Your task to perform on an android device: Search for seafood restaurants on Google Maps Image 0: 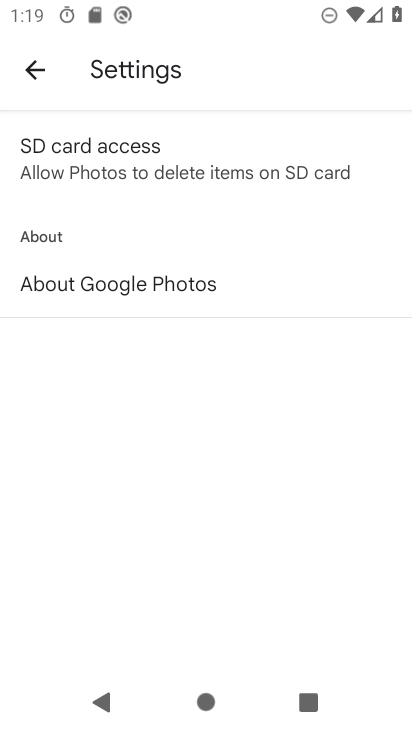
Step 0: press home button
Your task to perform on an android device: Search for seafood restaurants on Google Maps Image 1: 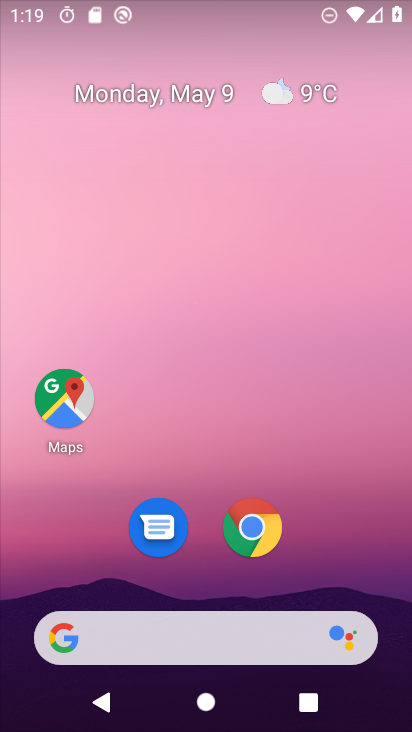
Step 1: click (57, 372)
Your task to perform on an android device: Search for seafood restaurants on Google Maps Image 2: 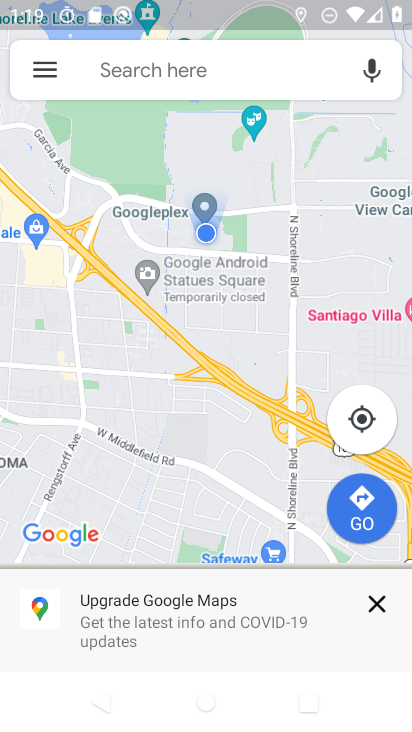
Step 2: click (211, 74)
Your task to perform on an android device: Search for seafood restaurants on Google Maps Image 3: 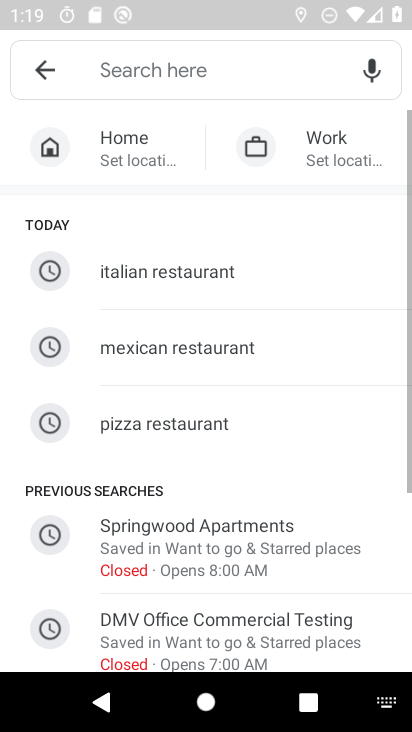
Step 3: drag from (232, 470) to (295, 10)
Your task to perform on an android device: Search for seafood restaurants on Google Maps Image 4: 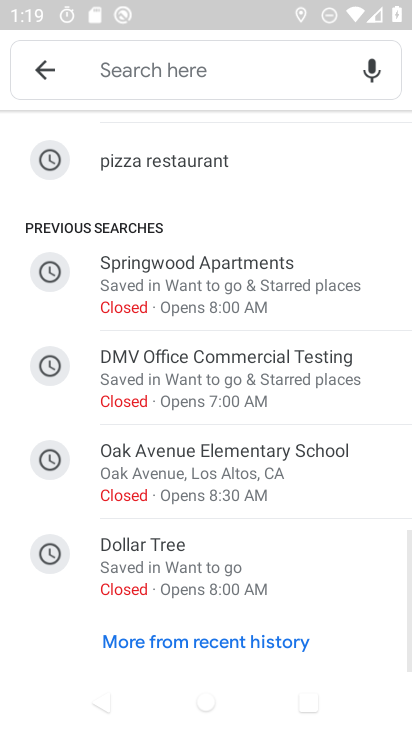
Step 4: click (176, 67)
Your task to perform on an android device: Search for seafood restaurants on Google Maps Image 5: 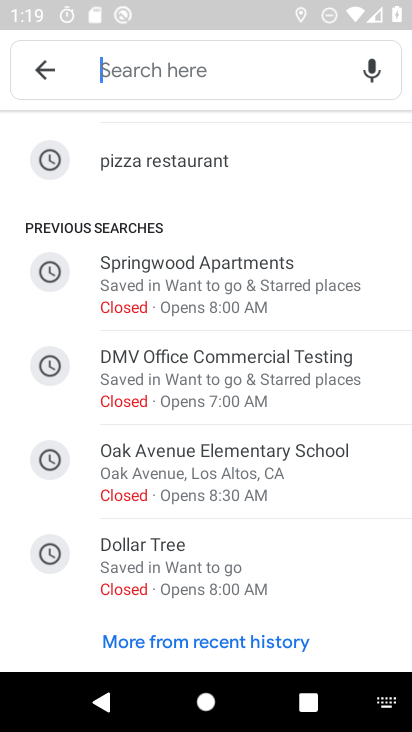
Step 5: type "seafood restaurants"
Your task to perform on an android device: Search for seafood restaurants on Google Maps Image 6: 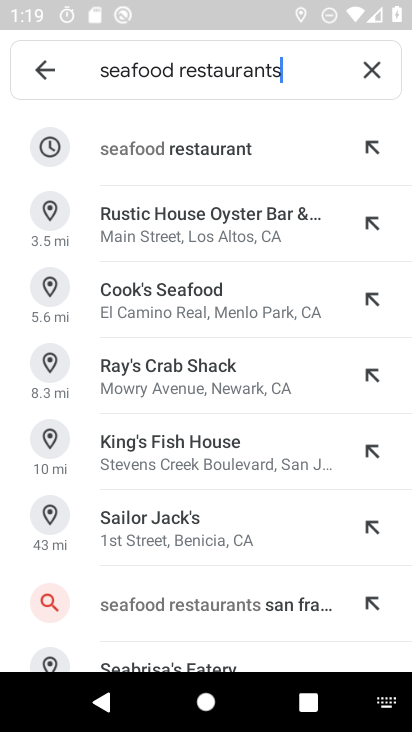
Step 6: click (264, 147)
Your task to perform on an android device: Search for seafood restaurants on Google Maps Image 7: 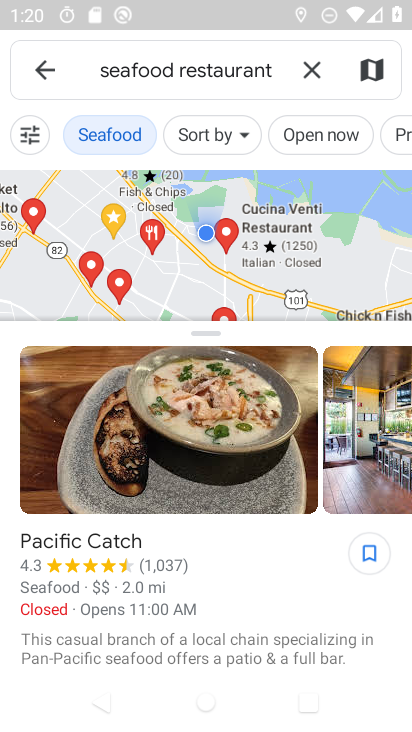
Step 7: task complete